Your task to perform on an android device: Go to settings Image 0: 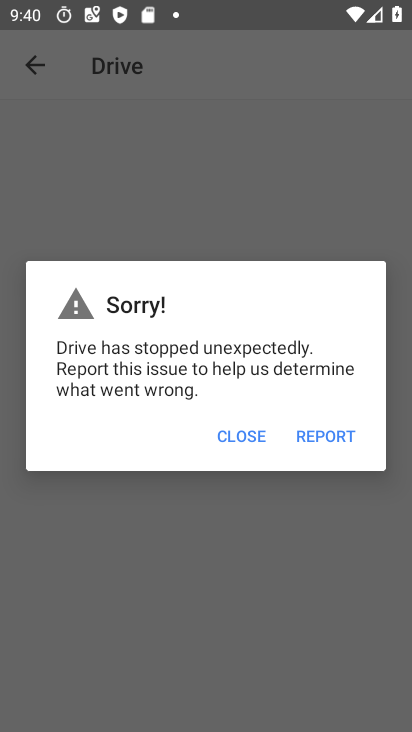
Step 0: press home button
Your task to perform on an android device: Go to settings Image 1: 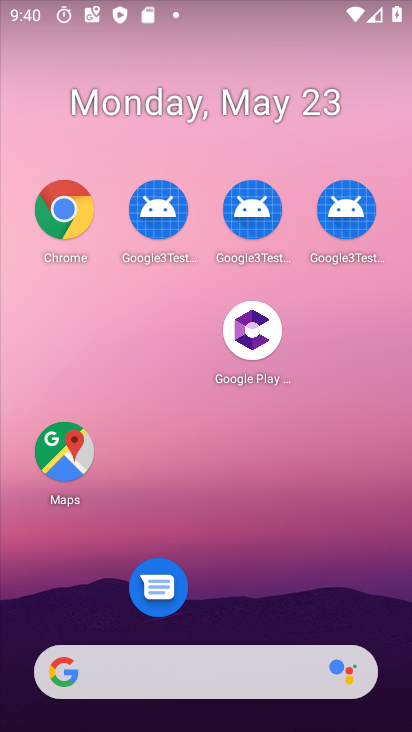
Step 1: drag from (227, 586) to (209, 15)
Your task to perform on an android device: Go to settings Image 2: 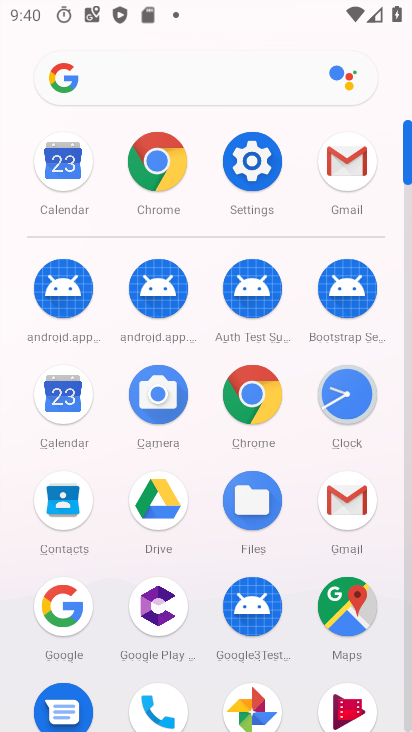
Step 2: click (249, 161)
Your task to perform on an android device: Go to settings Image 3: 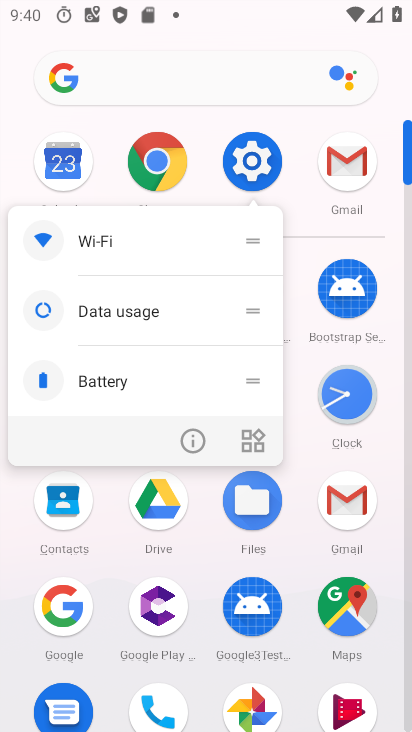
Step 3: click (247, 156)
Your task to perform on an android device: Go to settings Image 4: 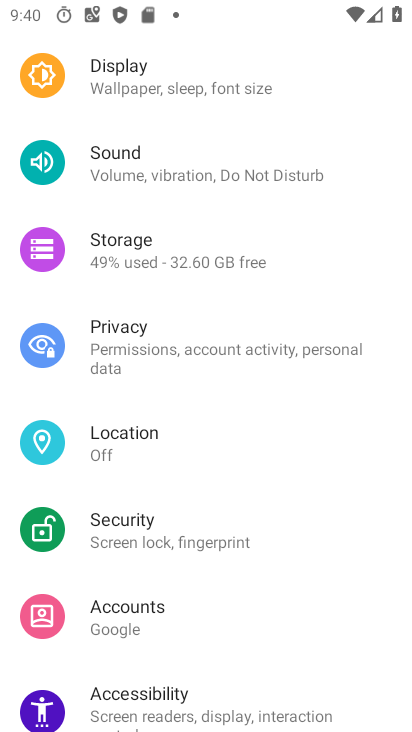
Step 4: task complete